Your task to perform on an android device: Is it going to rain this weekend? Image 0: 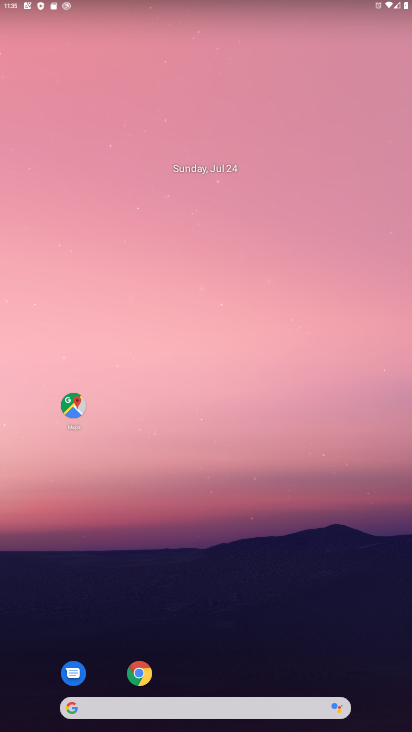
Step 0: drag from (365, 643) to (295, 100)
Your task to perform on an android device: Is it going to rain this weekend? Image 1: 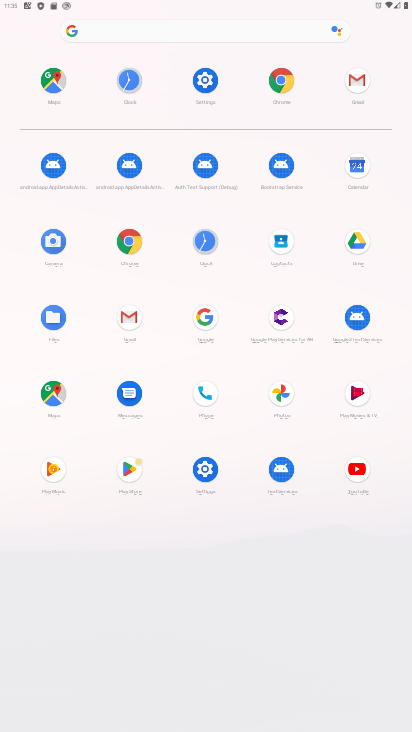
Step 1: click (281, 80)
Your task to perform on an android device: Is it going to rain this weekend? Image 2: 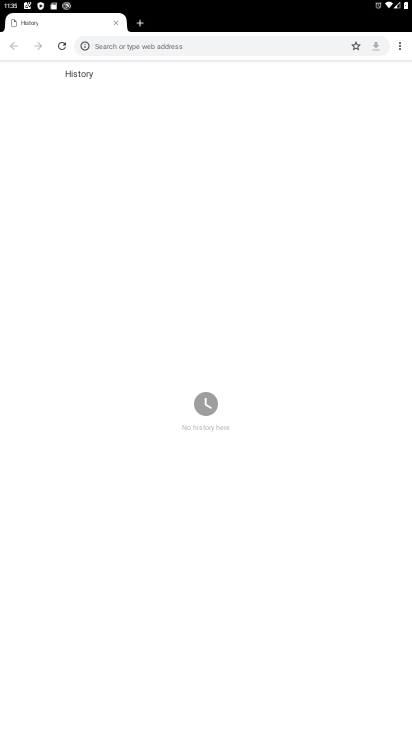
Step 2: click (246, 42)
Your task to perform on an android device: Is it going to rain this weekend? Image 3: 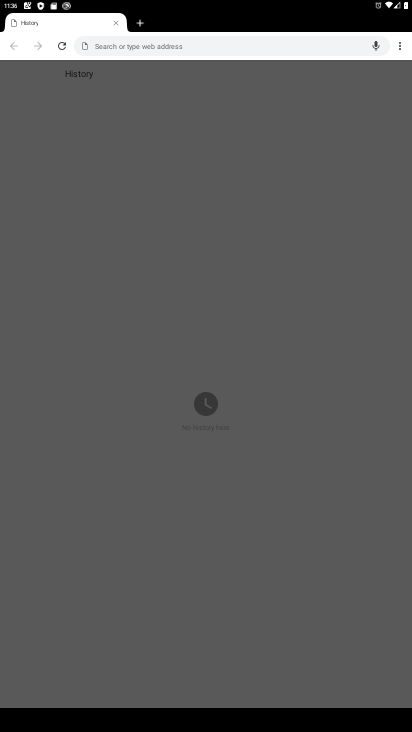
Step 3: type "weather"
Your task to perform on an android device: Is it going to rain this weekend? Image 4: 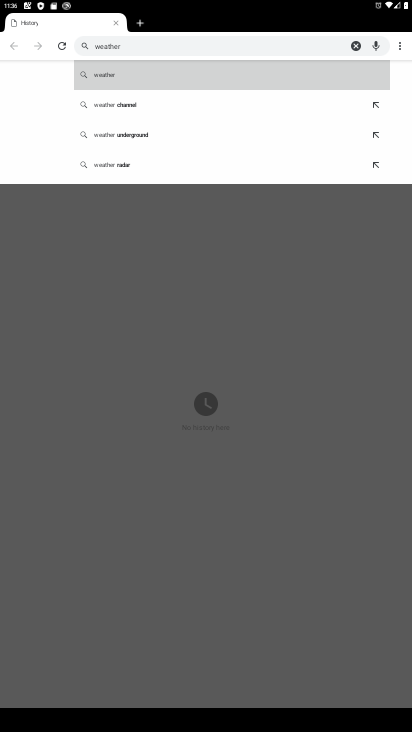
Step 4: click (105, 71)
Your task to perform on an android device: Is it going to rain this weekend? Image 5: 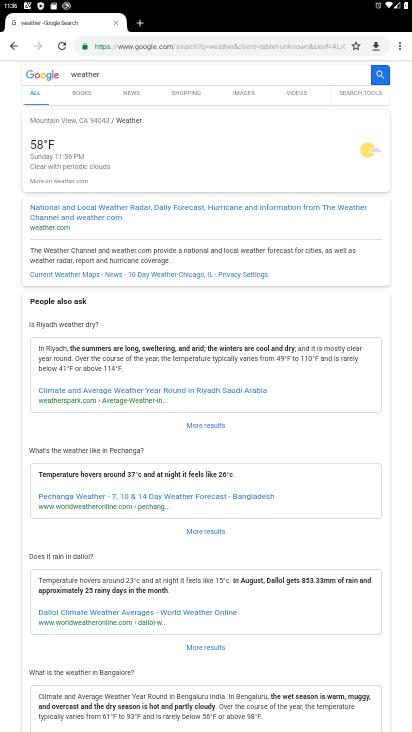
Step 5: click (53, 232)
Your task to perform on an android device: Is it going to rain this weekend? Image 6: 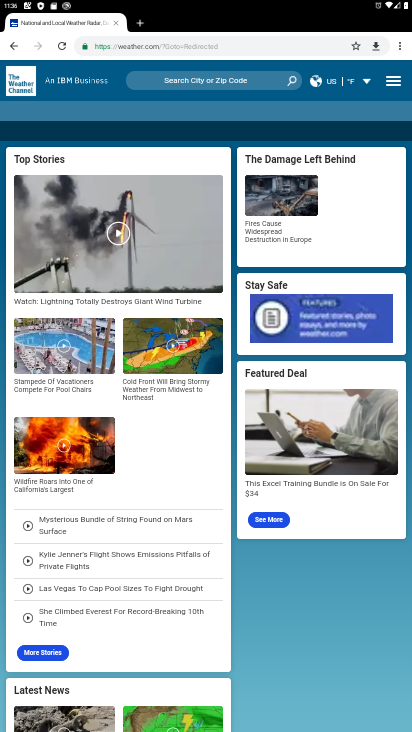
Step 6: task complete